Your task to perform on an android device: Is it going to rain today? Image 0: 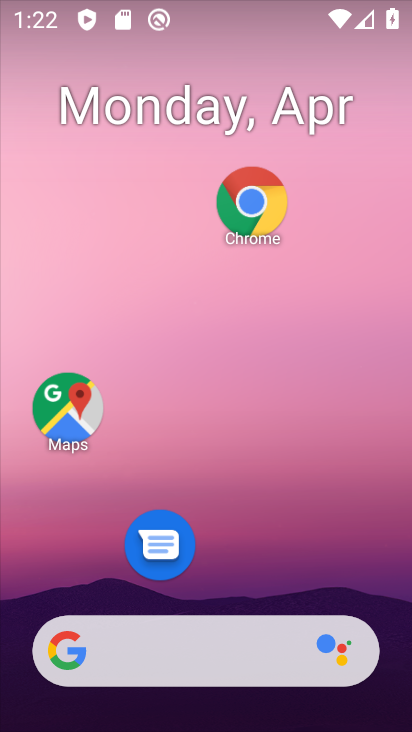
Step 0: click (163, 637)
Your task to perform on an android device: Is it going to rain today? Image 1: 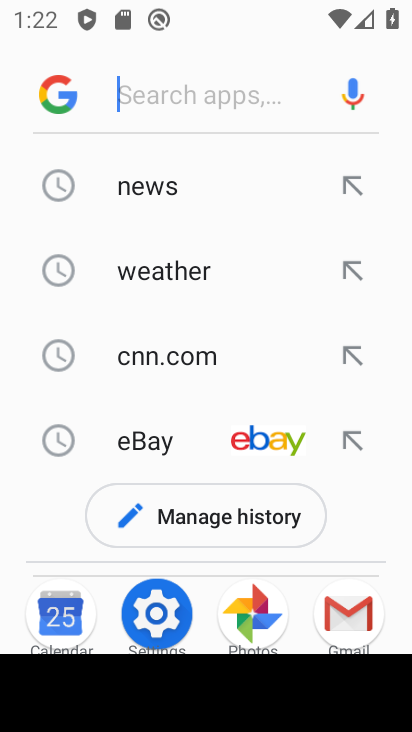
Step 1: click (62, 100)
Your task to perform on an android device: Is it going to rain today? Image 2: 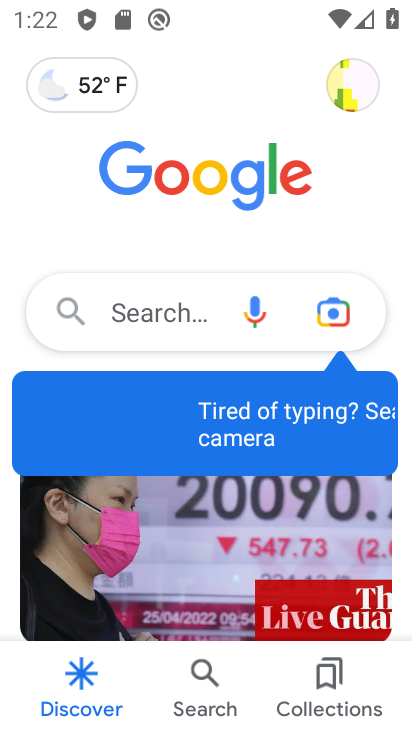
Step 2: click (60, 71)
Your task to perform on an android device: Is it going to rain today? Image 3: 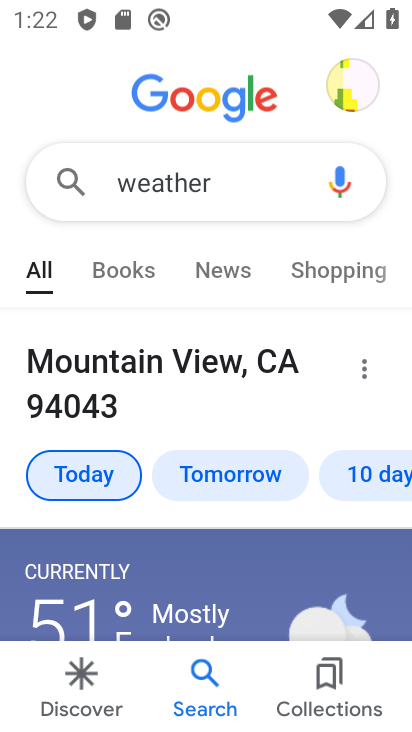
Step 3: task complete